Your task to perform on an android device: Search for Mexican restaurants on Maps Image 0: 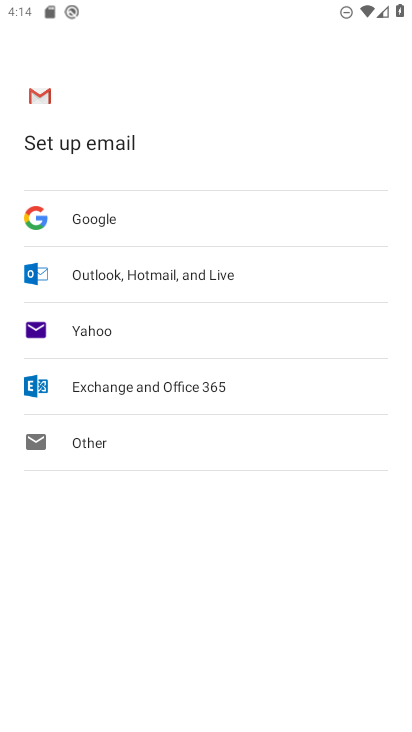
Step 0: press home button
Your task to perform on an android device: Search for Mexican restaurants on Maps Image 1: 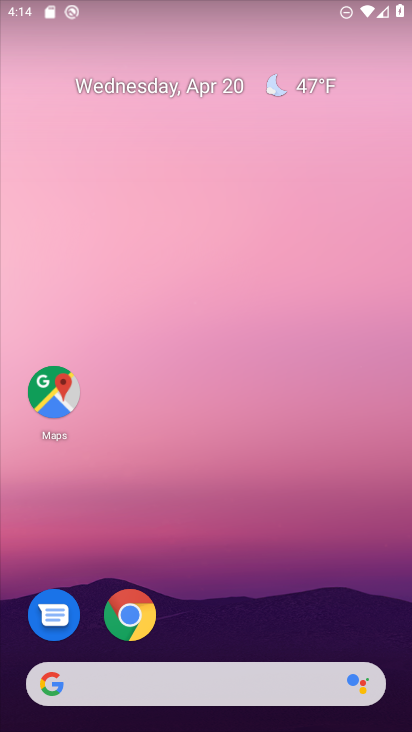
Step 1: click (48, 390)
Your task to perform on an android device: Search for Mexican restaurants on Maps Image 2: 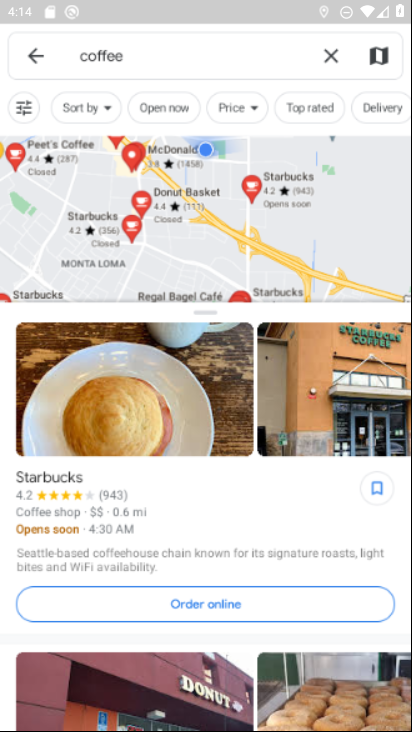
Step 2: click (327, 57)
Your task to perform on an android device: Search for Mexican restaurants on Maps Image 3: 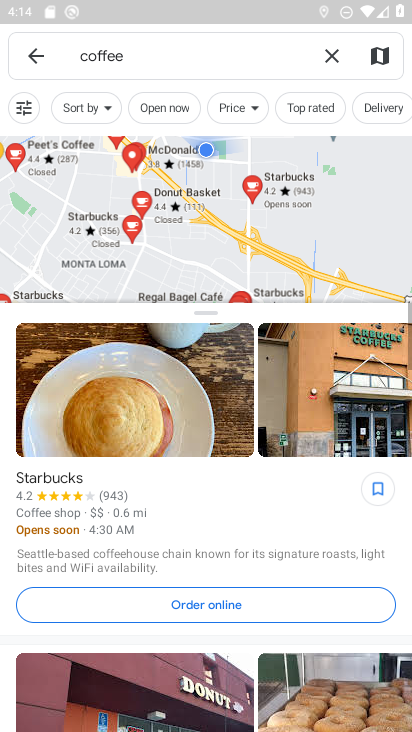
Step 3: click (327, 57)
Your task to perform on an android device: Search for Mexican restaurants on Maps Image 4: 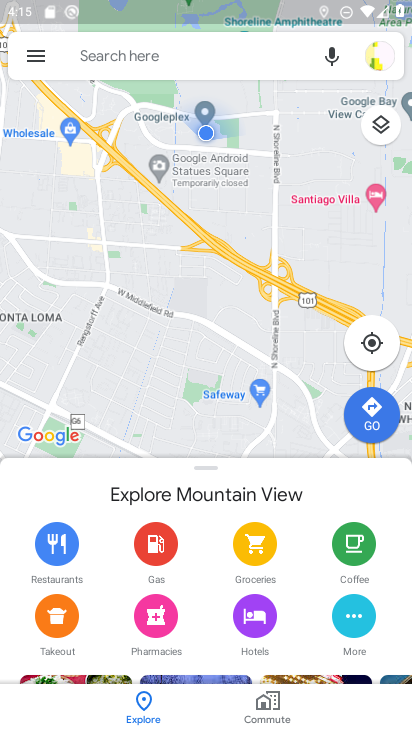
Step 4: type "mexican restaurants"
Your task to perform on an android device: Search for Mexican restaurants on Maps Image 5: 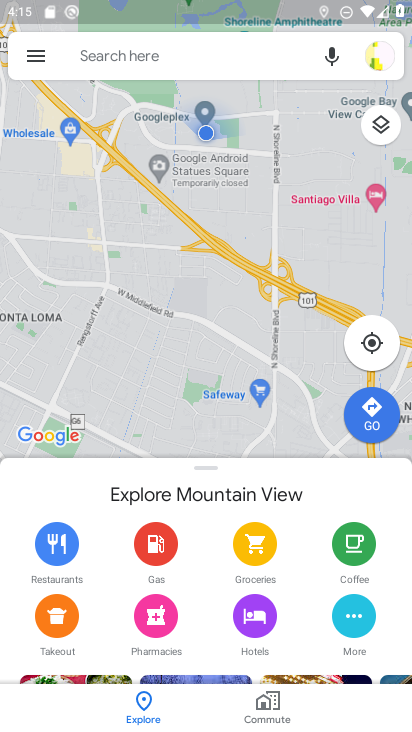
Step 5: click (219, 58)
Your task to perform on an android device: Search for Mexican restaurants on Maps Image 6: 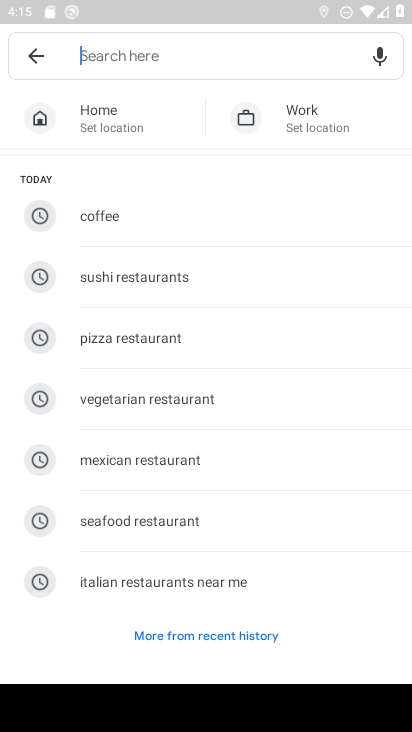
Step 6: click (185, 464)
Your task to perform on an android device: Search for Mexican restaurants on Maps Image 7: 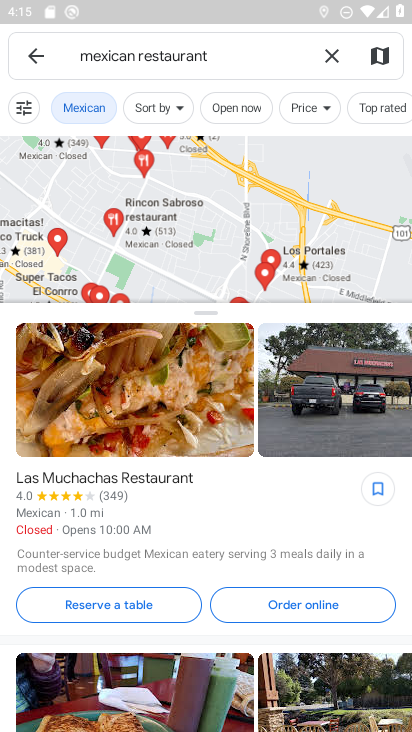
Step 7: task complete